Your task to perform on an android device: toggle location history Image 0: 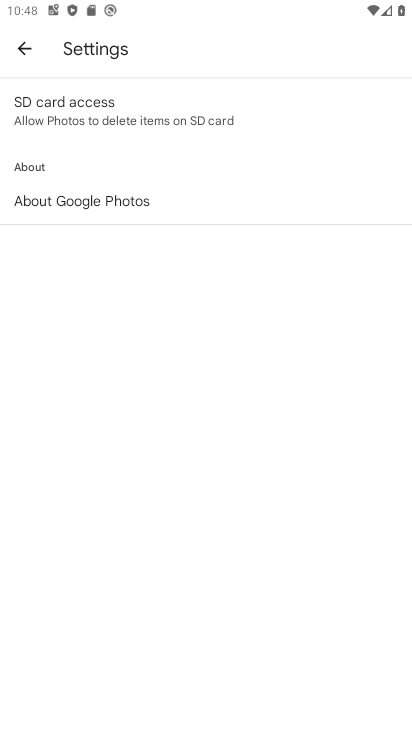
Step 0: click (26, 43)
Your task to perform on an android device: toggle location history Image 1: 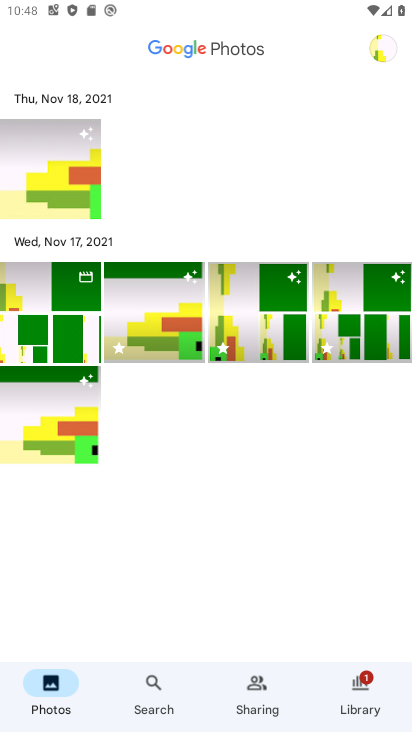
Step 1: press home button
Your task to perform on an android device: toggle location history Image 2: 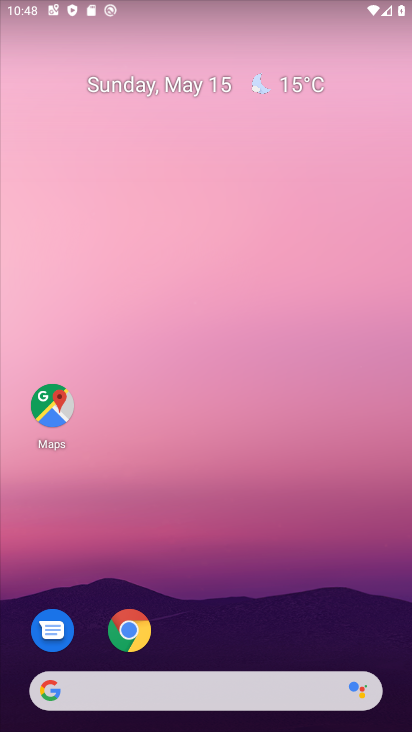
Step 2: drag from (221, 722) to (174, 217)
Your task to perform on an android device: toggle location history Image 3: 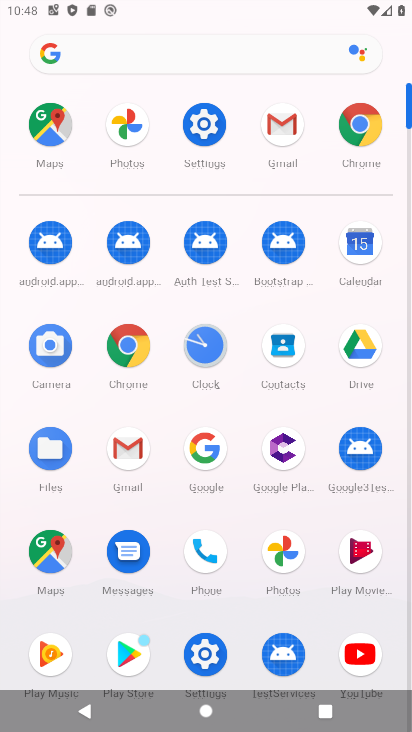
Step 3: click (207, 131)
Your task to perform on an android device: toggle location history Image 4: 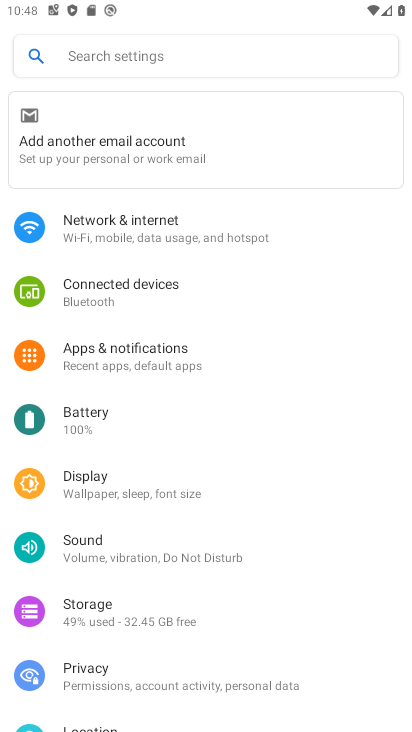
Step 4: drag from (131, 653) to (118, 266)
Your task to perform on an android device: toggle location history Image 5: 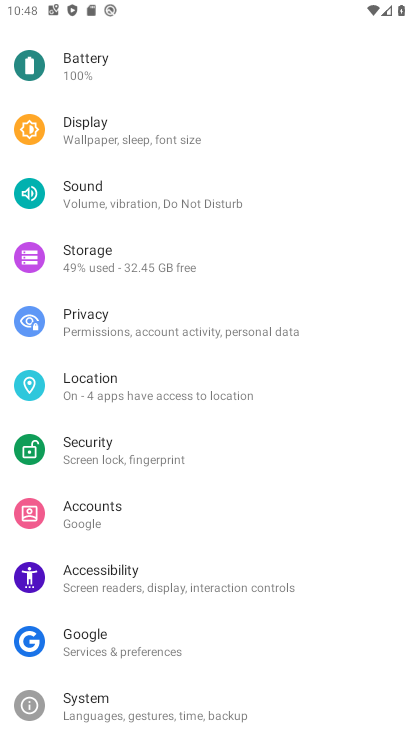
Step 5: click (91, 382)
Your task to perform on an android device: toggle location history Image 6: 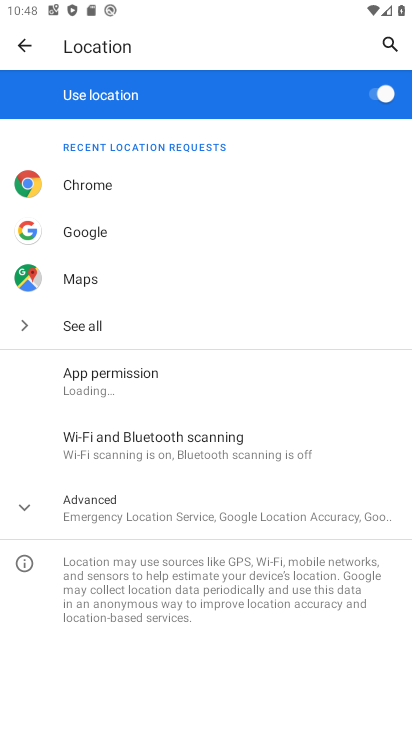
Step 6: click (91, 497)
Your task to perform on an android device: toggle location history Image 7: 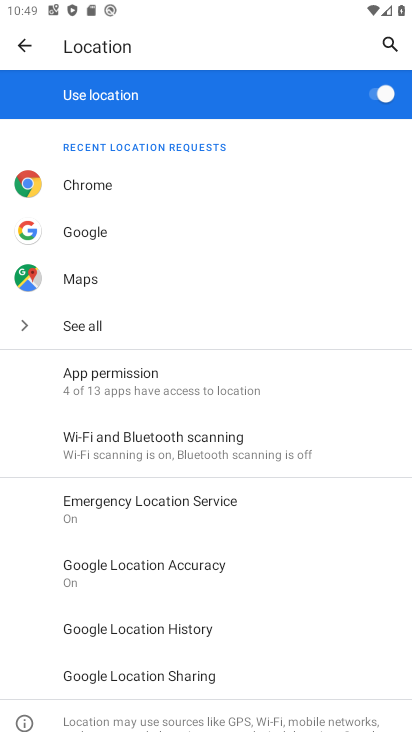
Step 7: drag from (193, 668) to (199, 510)
Your task to perform on an android device: toggle location history Image 8: 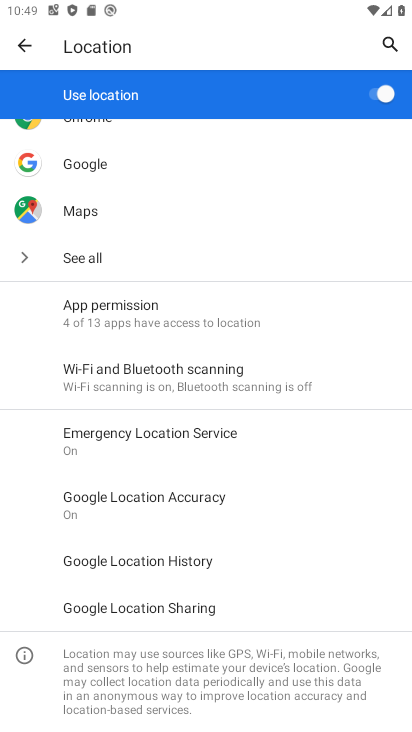
Step 8: click (172, 555)
Your task to perform on an android device: toggle location history Image 9: 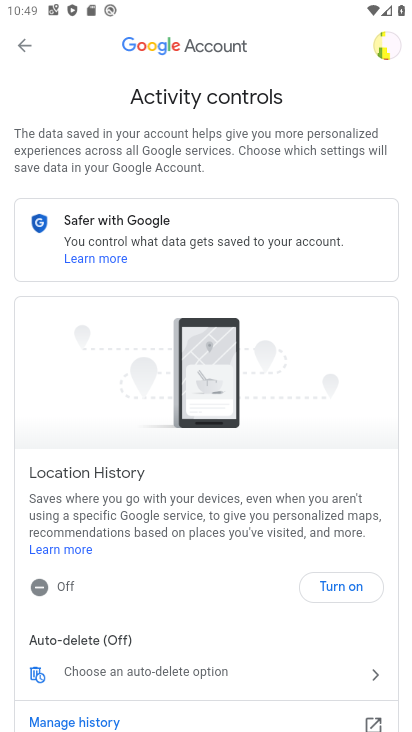
Step 9: click (353, 587)
Your task to perform on an android device: toggle location history Image 10: 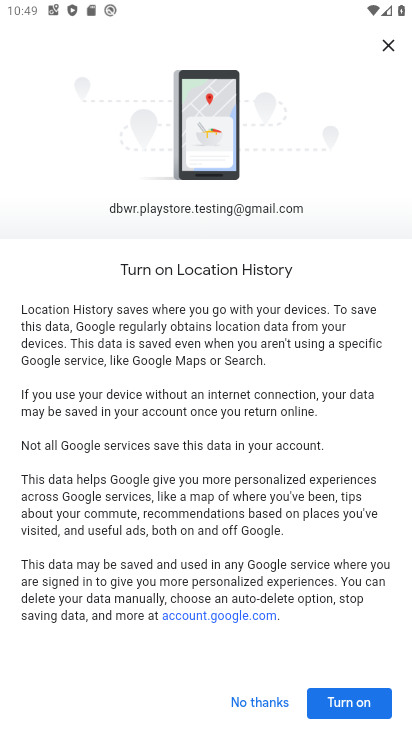
Step 10: click (345, 706)
Your task to perform on an android device: toggle location history Image 11: 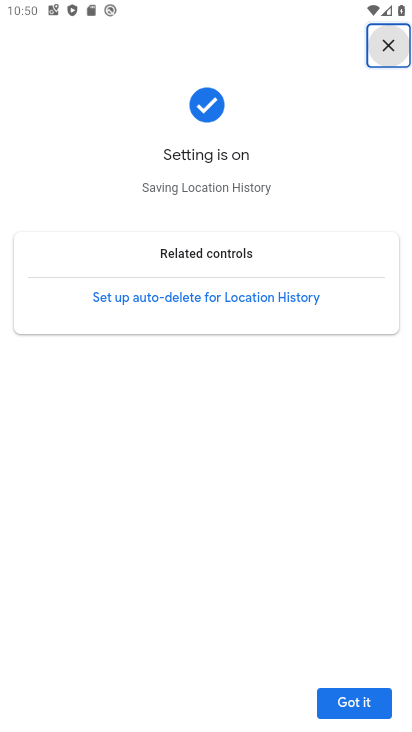
Step 11: click (386, 704)
Your task to perform on an android device: toggle location history Image 12: 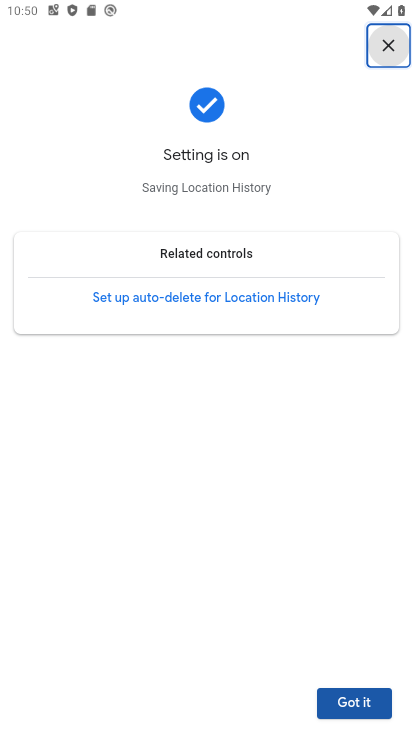
Step 12: task complete